Your task to perform on an android device: turn on the 12-hour format for clock Image 0: 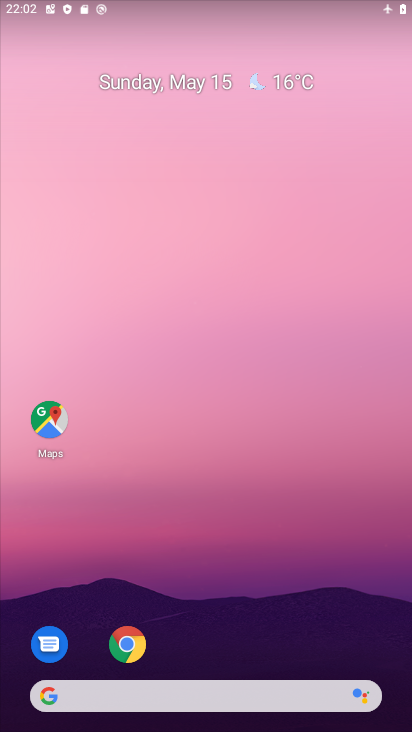
Step 0: drag from (178, 635) to (225, 161)
Your task to perform on an android device: turn on the 12-hour format for clock Image 1: 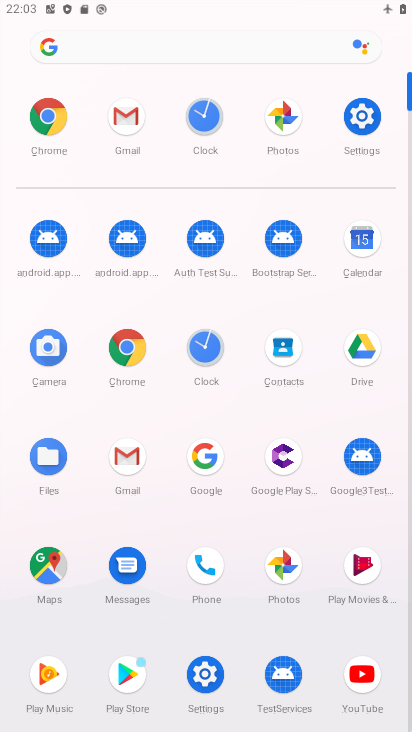
Step 1: click (207, 355)
Your task to perform on an android device: turn on the 12-hour format for clock Image 2: 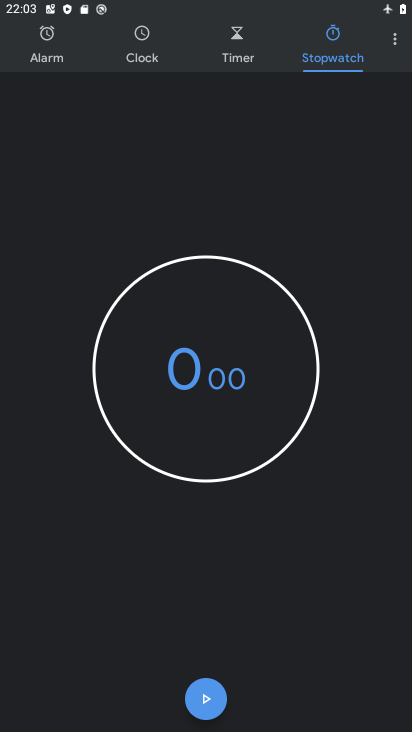
Step 2: click (392, 35)
Your task to perform on an android device: turn on the 12-hour format for clock Image 3: 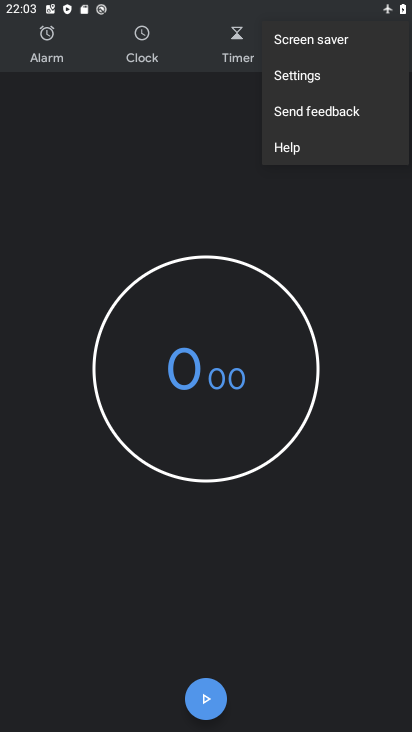
Step 3: click (300, 77)
Your task to perform on an android device: turn on the 12-hour format for clock Image 4: 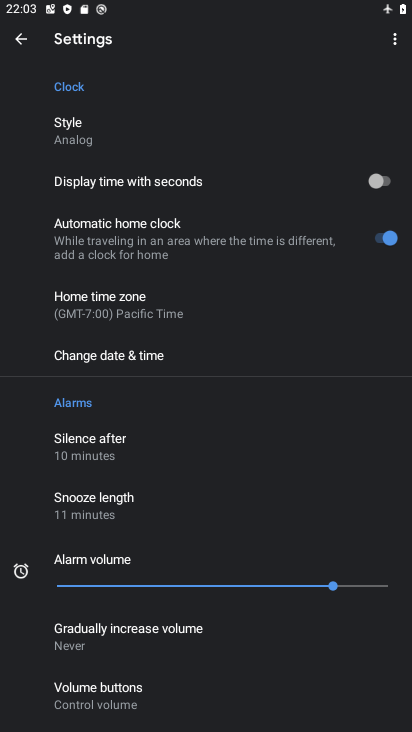
Step 4: click (140, 356)
Your task to perform on an android device: turn on the 12-hour format for clock Image 5: 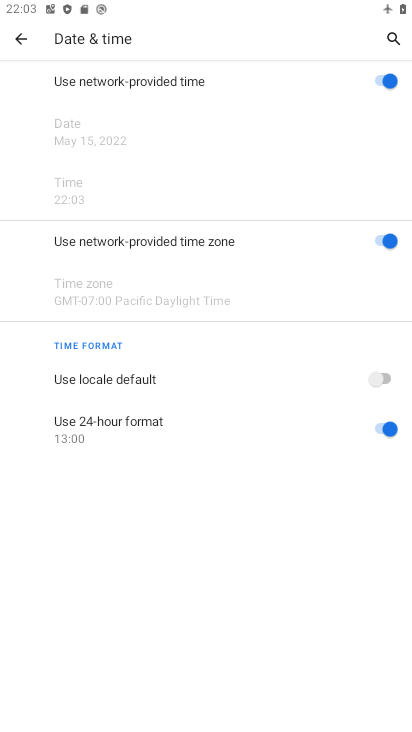
Step 5: click (388, 380)
Your task to perform on an android device: turn on the 12-hour format for clock Image 6: 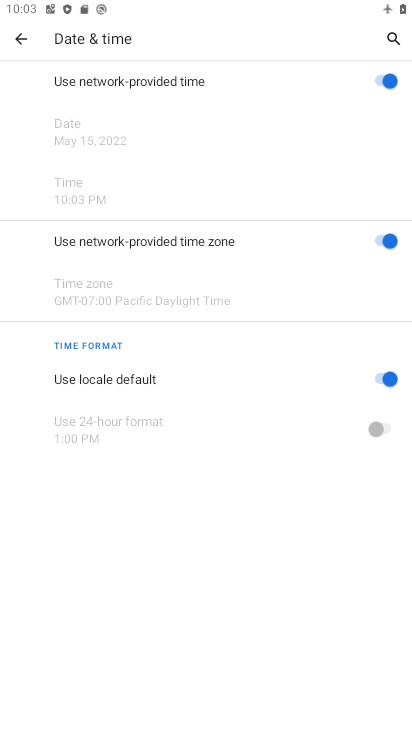
Step 6: task complete